Your task to perform on an android device: open app "Expedia: Hotels, Flights & Car" Image 0: 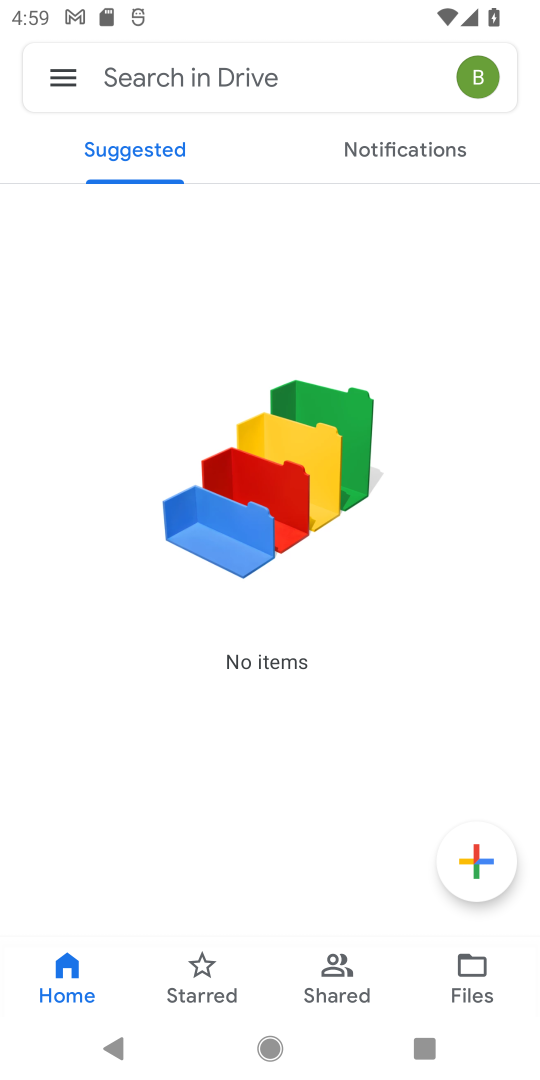
Step 0: press back button
Your task to perform on an android device: open app "Expedia: Hotels, Flights & Car" Image 1: 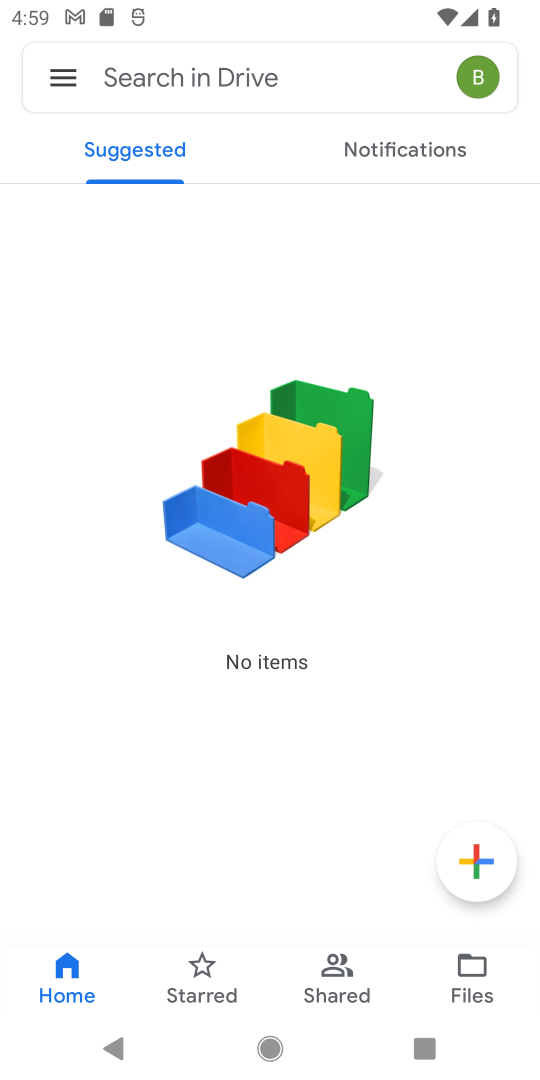
Step 1: press back button
Your task to perform on an android device: open app "Expedia: Hotels, Flights & Car" Image 2: 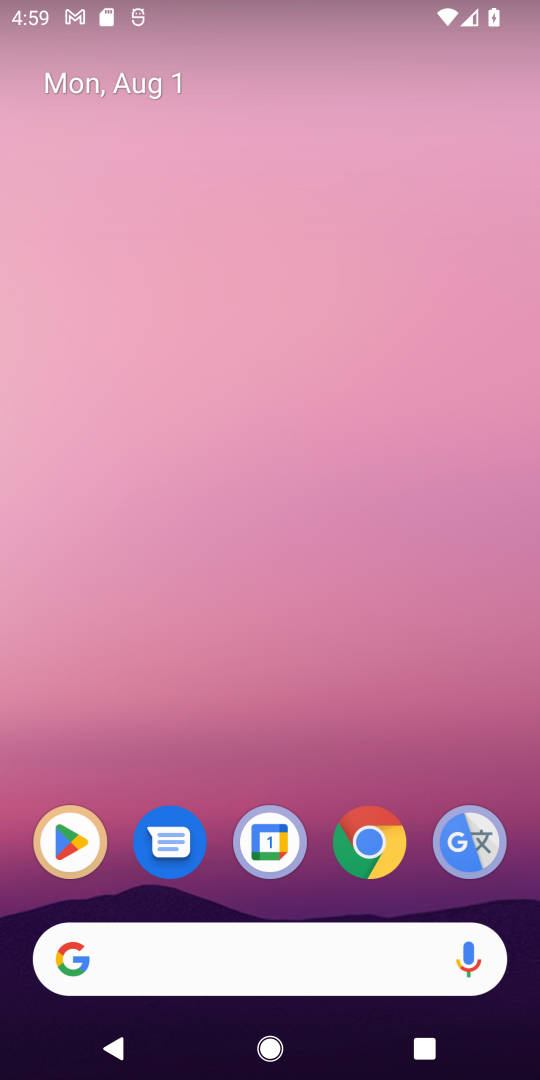
Step 2: press back button
Your task to perform on an android device: open app "Expedia: Hotels, Flights & Car" Image 3: 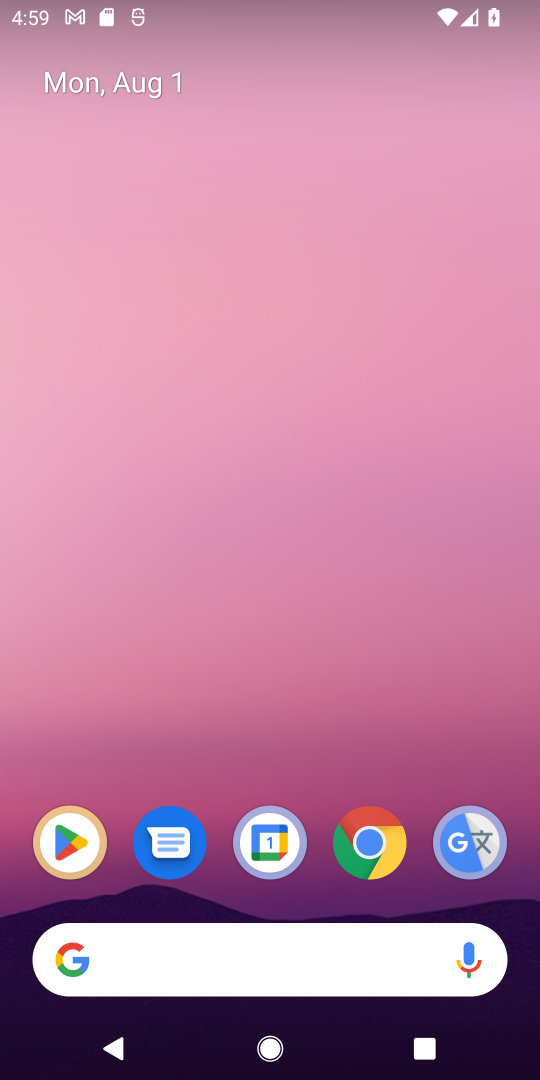
Step 3: drag from (214, 750) to (188, 547)
Your task to perform on an android device: open app "Expedia: Hotels, Flights & Car" Image 4: 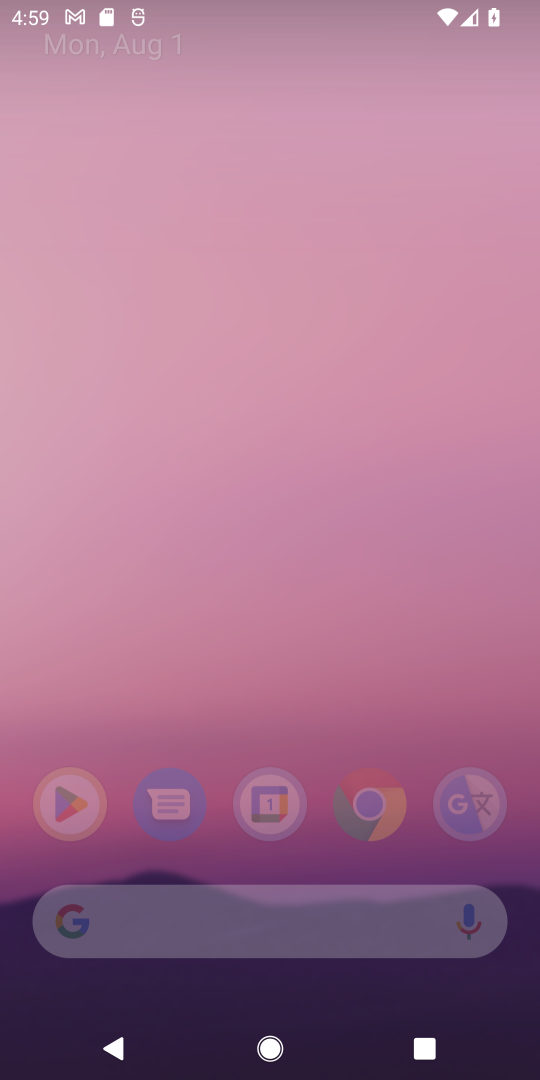
Step 4: drag from (270, 497) to (270, 372)
Your task to perform on an android device: open app "Expedia: Hotels, Flights & Car" Image 5: 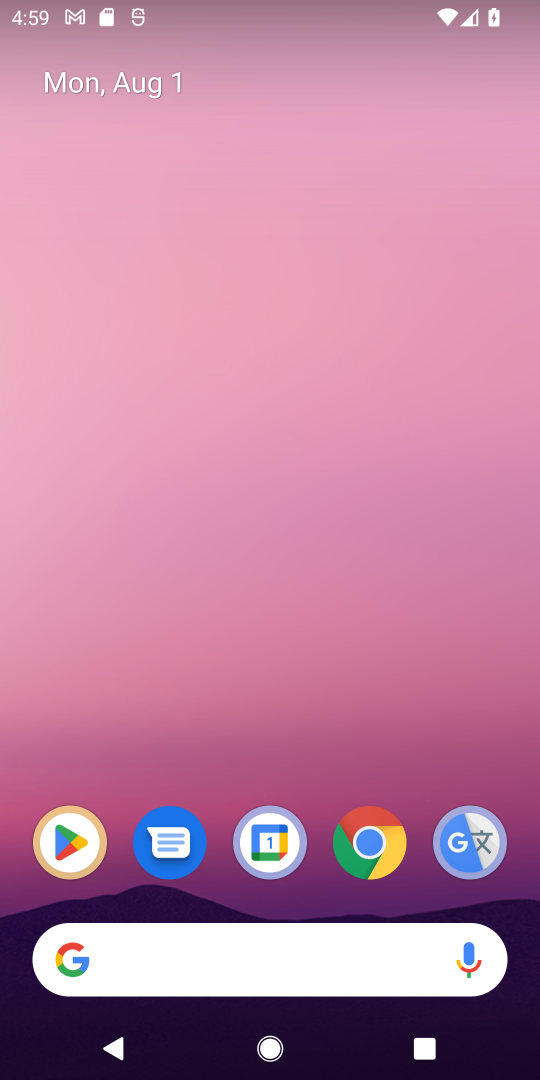
Step 5: drag from (276, 743) to (237, 238)
Your task to perform on an android device: open app "Expedia: Hotels, Flights & Car" Image 6: 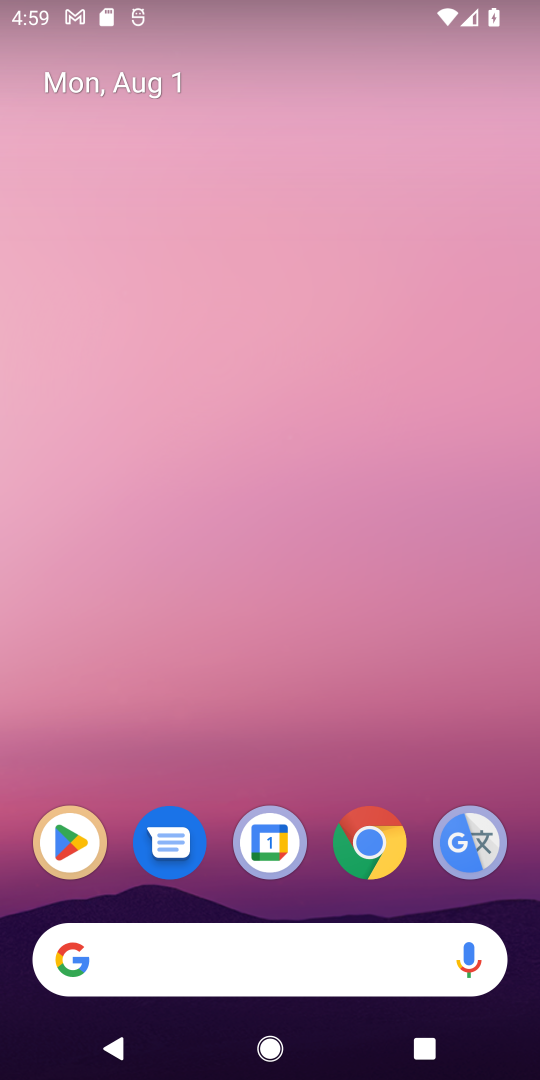
Step 6: drag from (324, 156) to (324, 97)
Your task to perform on an android device: open app "Expedia: Hotels, Flights & Car" Image 7: 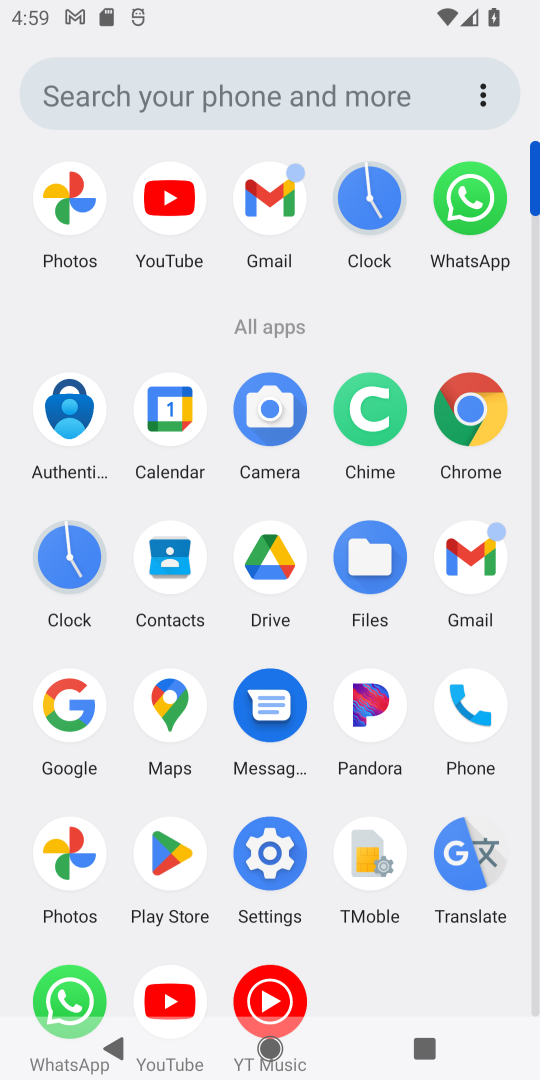
Step 7: drag from (300, 748) to (312, 109)
Your task to perform on an android device: open app "Expedia: Hotels, Flights & Car" Image 8: 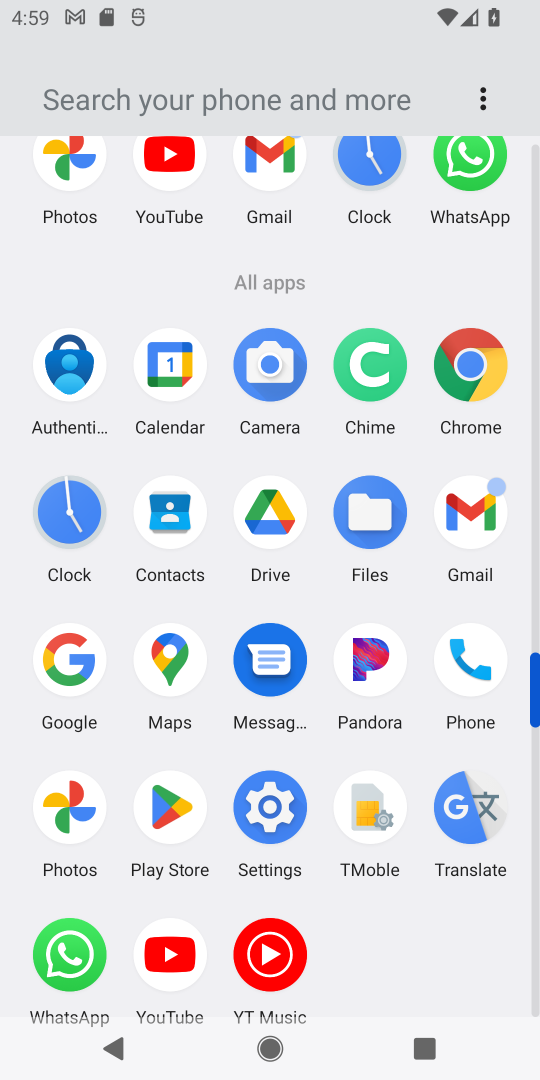
Step 8: click (177, 816)
Your task to perform on an android device: open app "Expedia: Hotels, Flights & Car" Image 9: 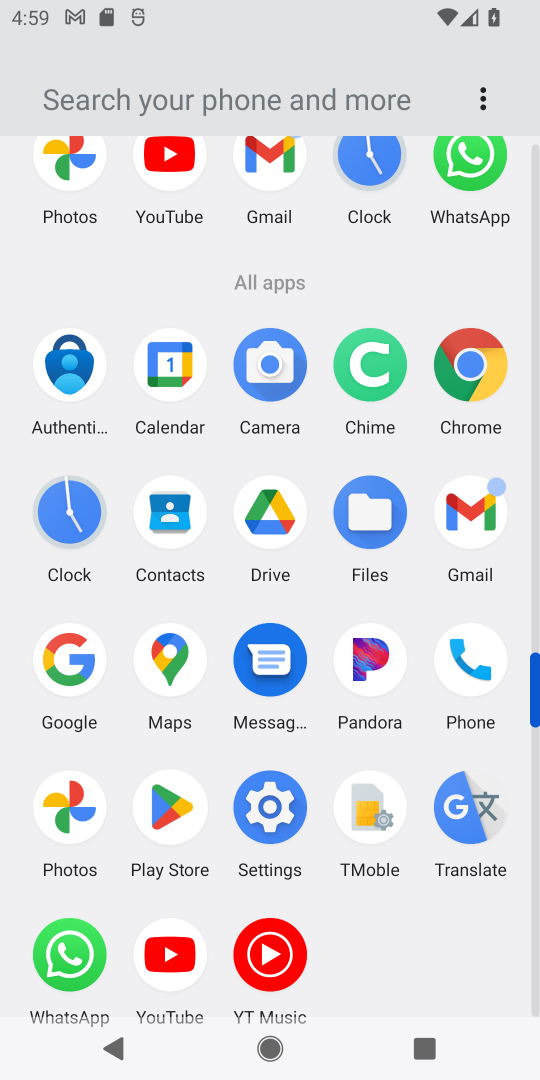
Step 9: click (180, 816)
Your task to perform on an android device: open app "Expedia: Hotels, Flights & Car" Image 10: 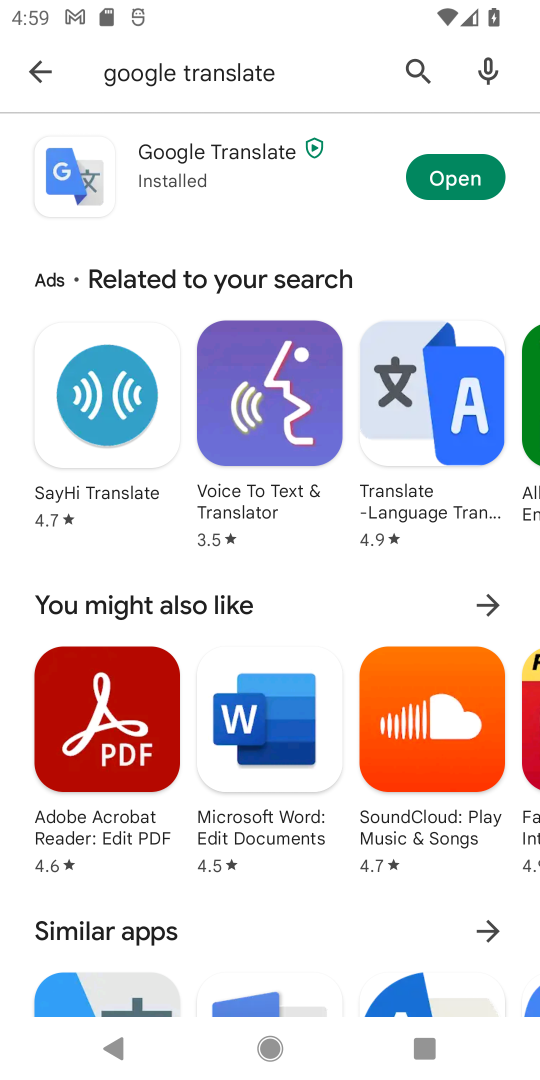
Step 10: click (37, 51)
Your task to perform on an android device: open app "Expedia: Hotels, Flights & Car" Image 11: 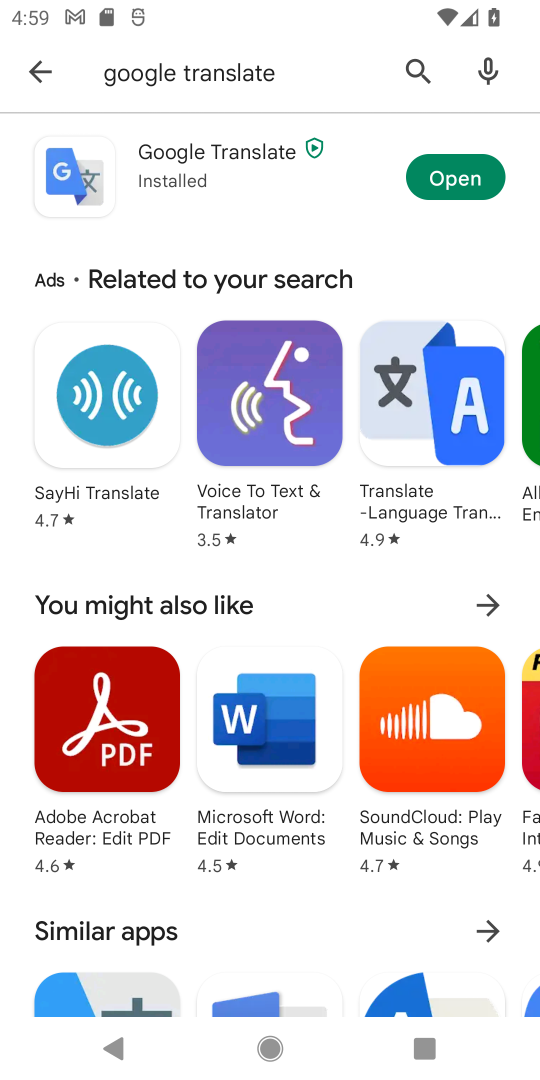
Step 11: click (34, 56)
Your task to perform on an android device: open app "Expedia: Hotels, Flights & Car" Image 12: 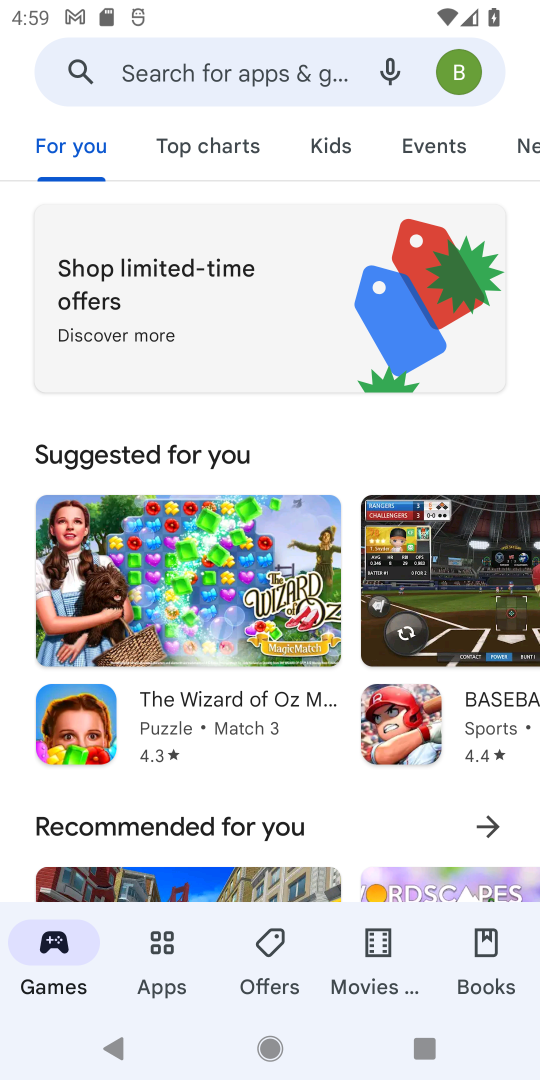
Step 12: click (175, 73)
Your task to perform on an android device: open app "Expedia: Hotels, Flights & Car" Image 13: 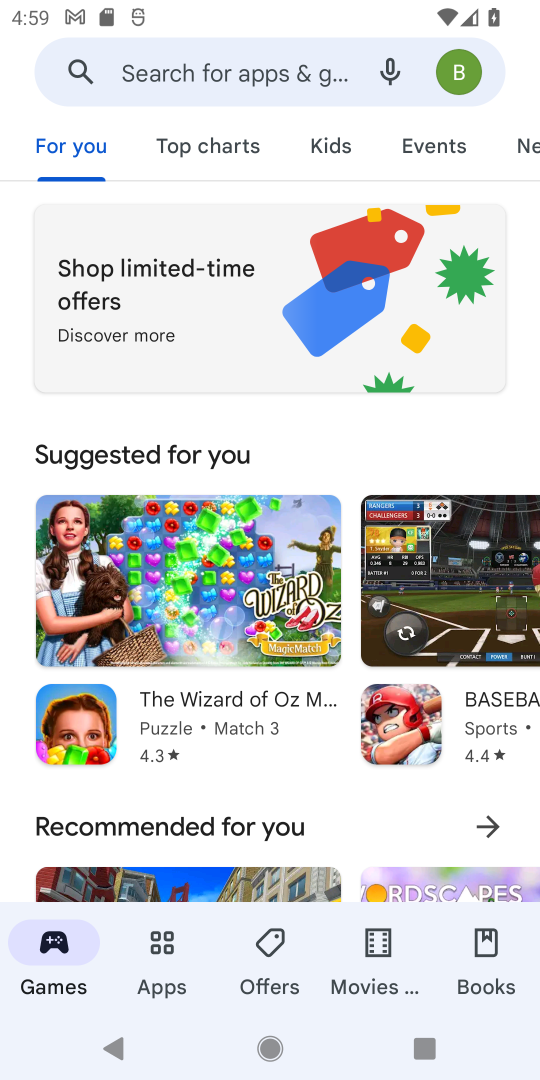
Step 13: click (187, 64)
Your task to perform on an android device: open app "Expedia: Hotels, Flights & Car" Image 14: 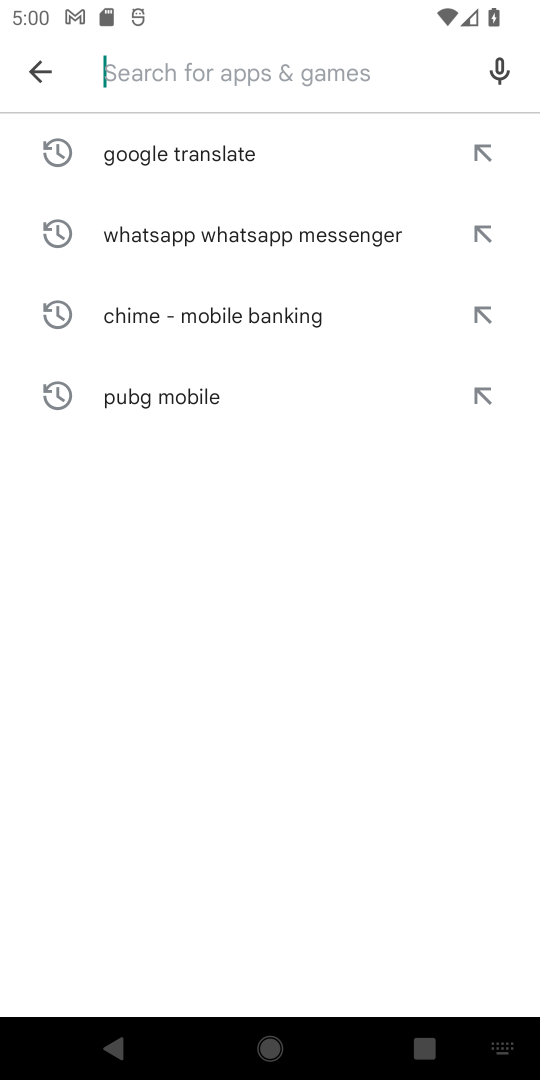
Step 14: type "Expedia :Hotels, Flight& Car"
Your task to perform on an android device: open app "Expedia: Hotels, Flights & Car" Image 15: 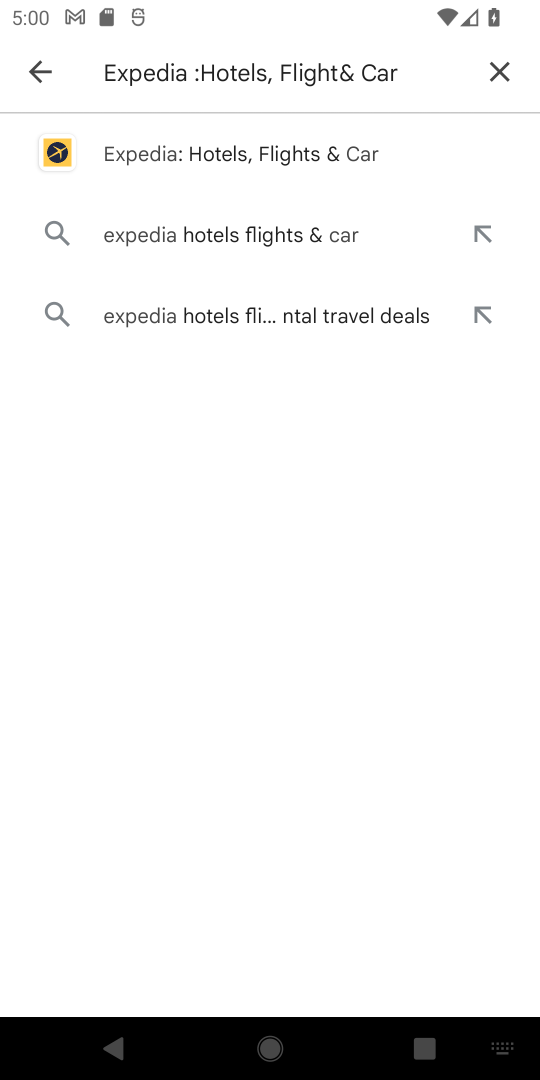
Step 15: click (233, 135)
Your task to perform on an android device: open app "Expedia: Hotels, Flights & Car" Image 16: 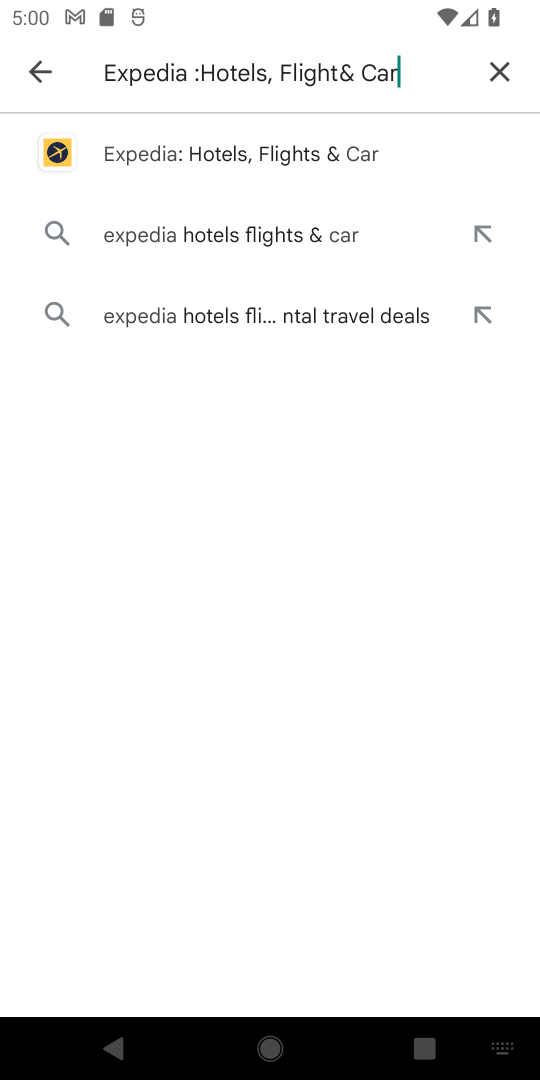
Step 16: click (237, 151)
Your task to perform on an android device: open app "Expedia: Hotels, Flights & Car" Image 17: 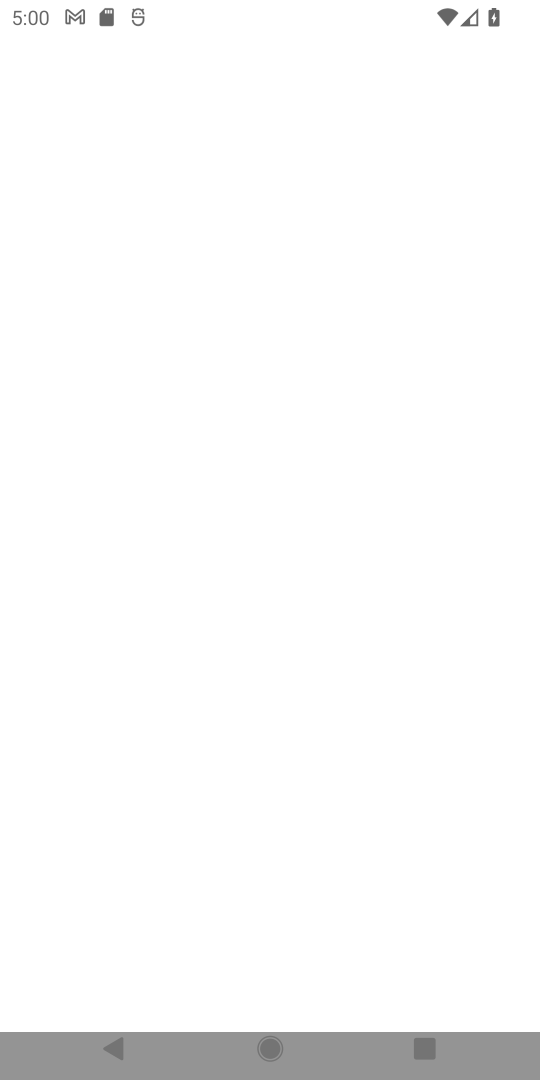
Step 17: click (247, 161)
Your task to perform on an android device: open app "Expedia: Hotels, Flights & Car" Image 18: 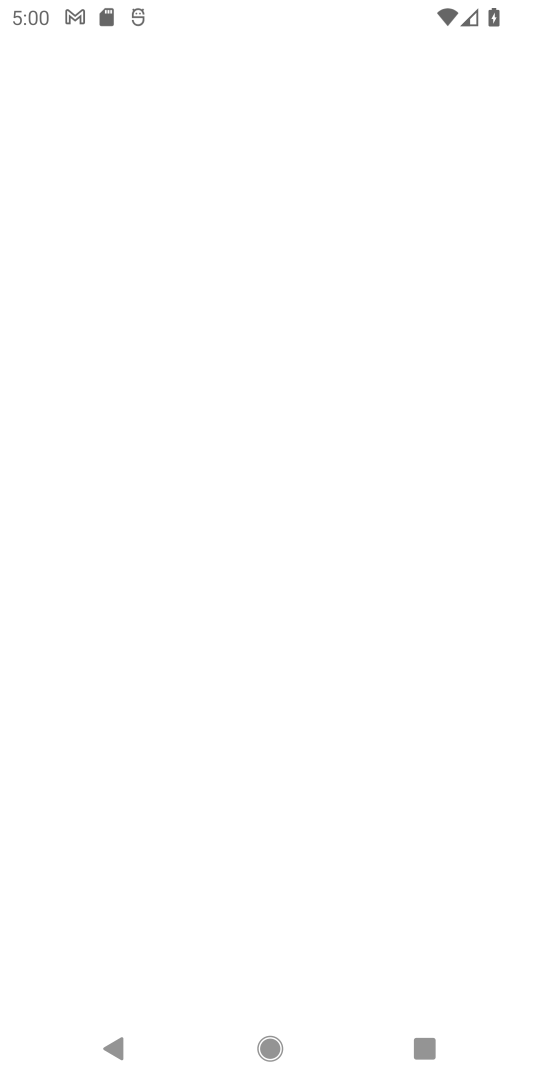
Step 18: click (250, 165)
Your task to perform on an android device: open app "Expedia: Hotels, Flights & Car" Image 19: 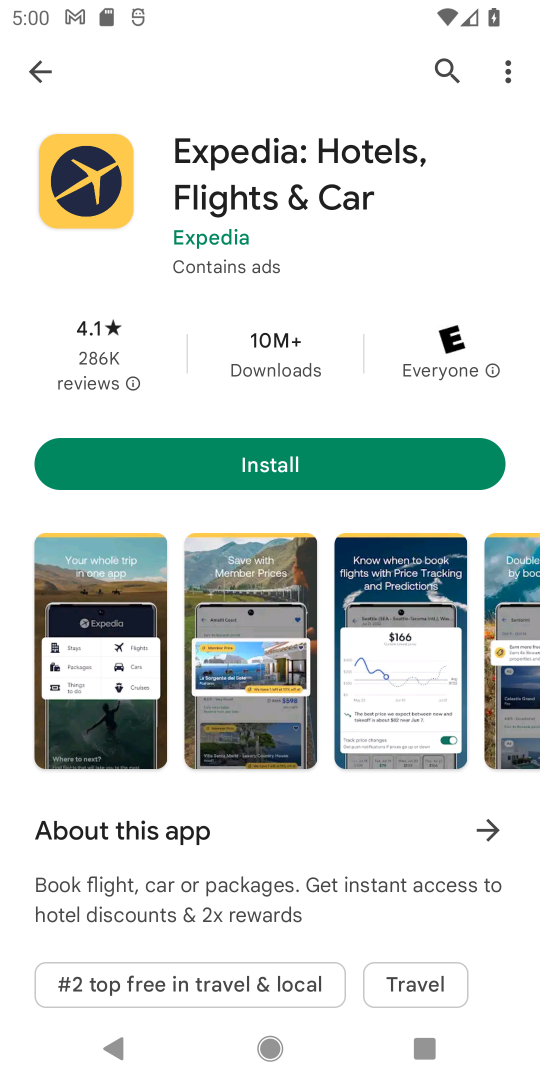
Step 19: click (334, 457)
Your task to perform on an android device: open app "Expedia: Hotels, Flights & Car" Image 20: 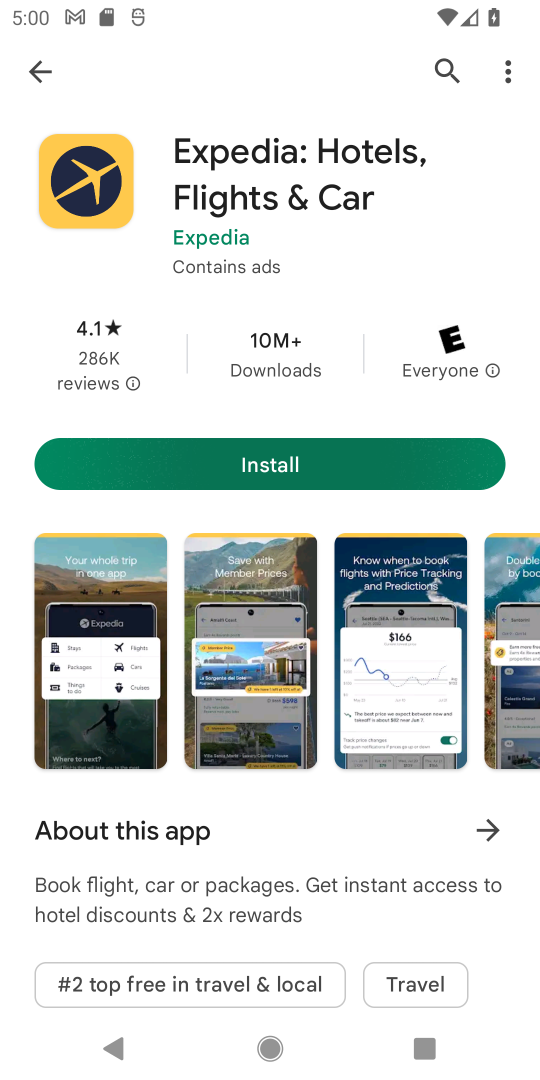
Step 20: click (334, 457)
Your task to perform on an android device: open app "Expedia: Hotels, Flights & Car" Image 21: 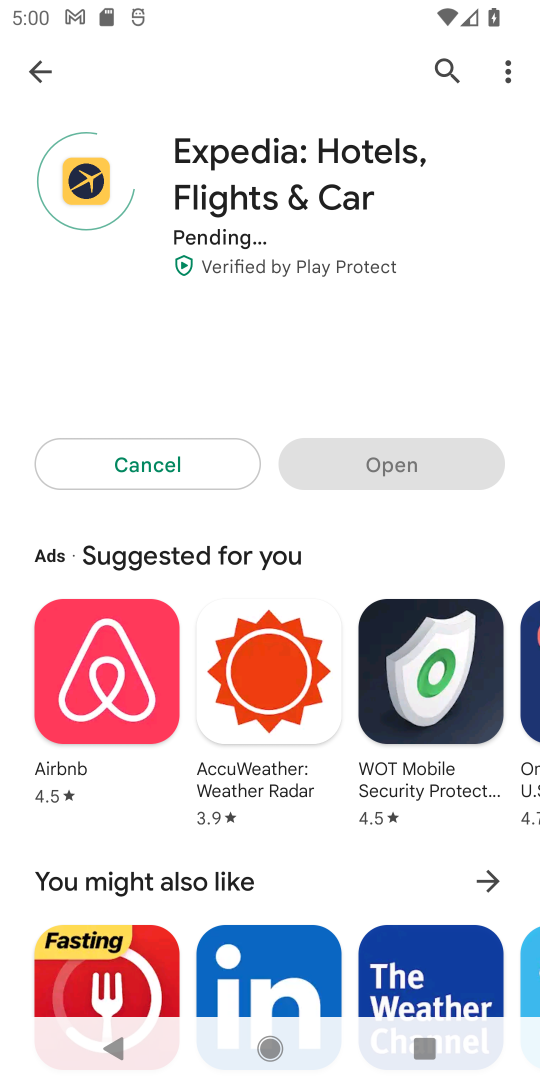
Step 21: click (338, 464)
Your task to perform on an android device: open app "Expedia: Hotels, Flights & Car" Image 22: 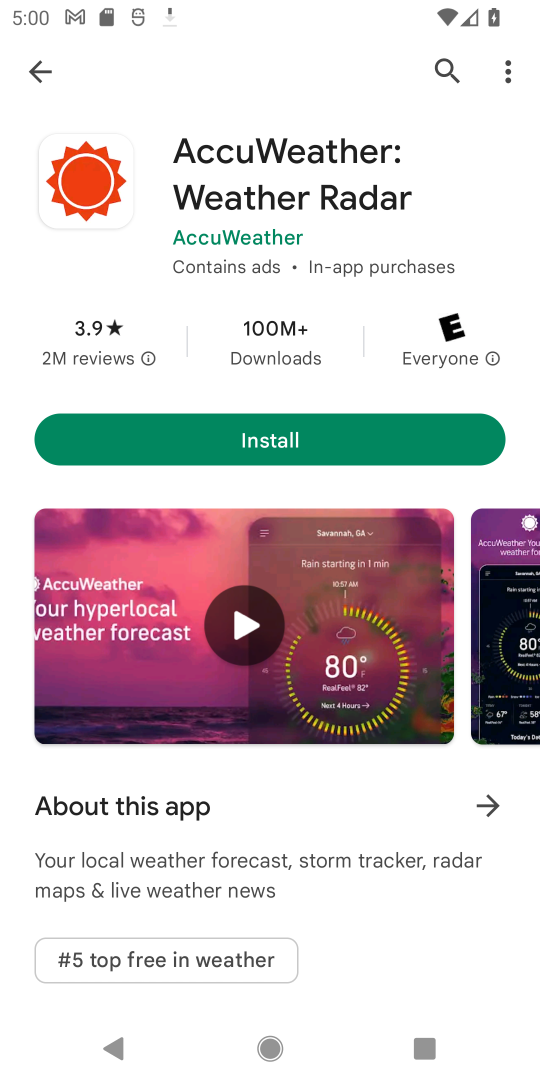
Step 22: click (324, 431)
Your task to perform on an android device: open app "Expedia: Hotels, Flights & Car" Image 23: 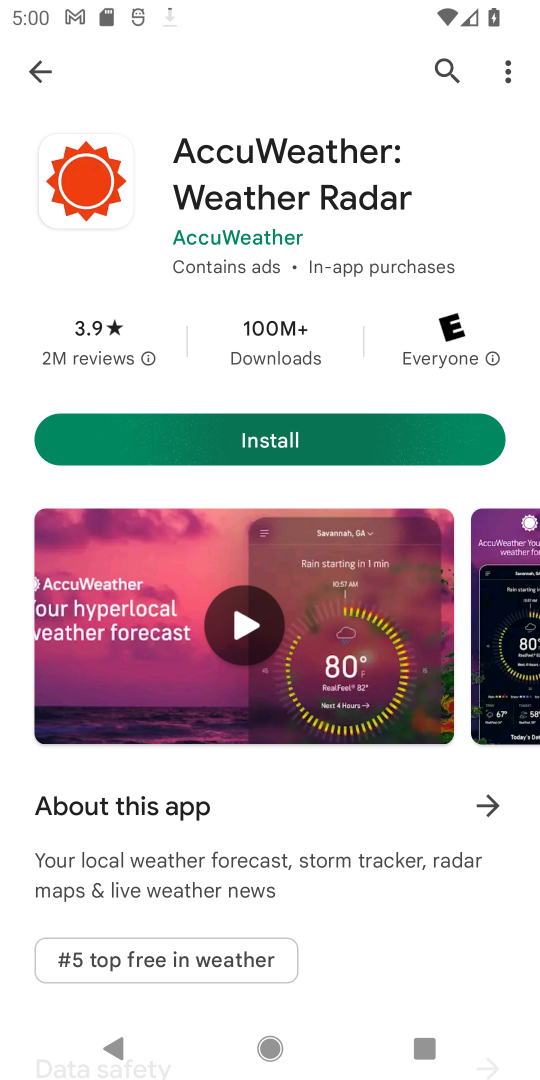
Step 23: click (327, 433)
Your task to perform on an android device: open app "Expedia: Hotels, Flights & Car" Image 24: 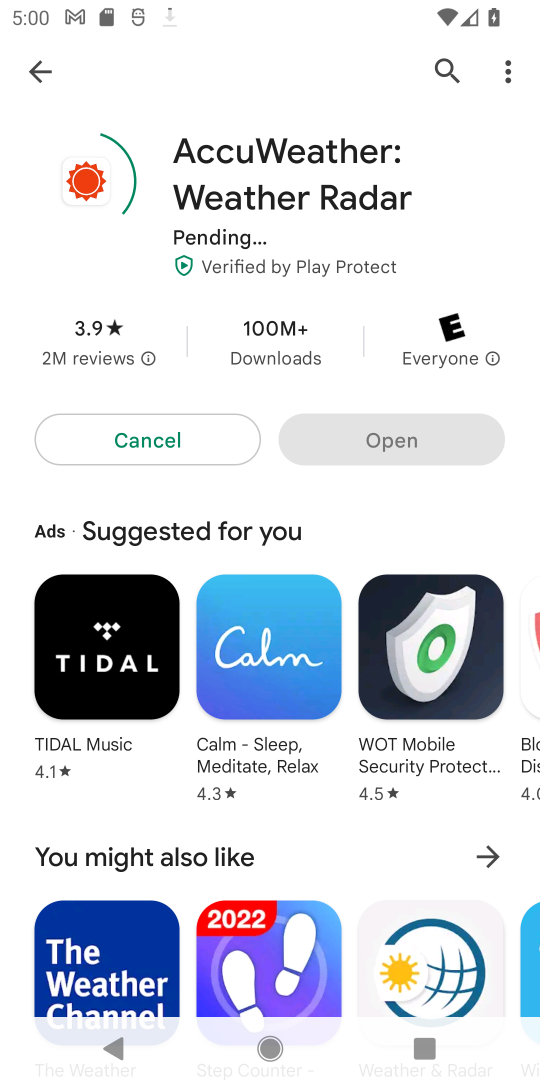
Step 24: click (338, 436)
Your task to perform on an android device: open app "Expedia: Hotels, Flights & Car" Image 25: 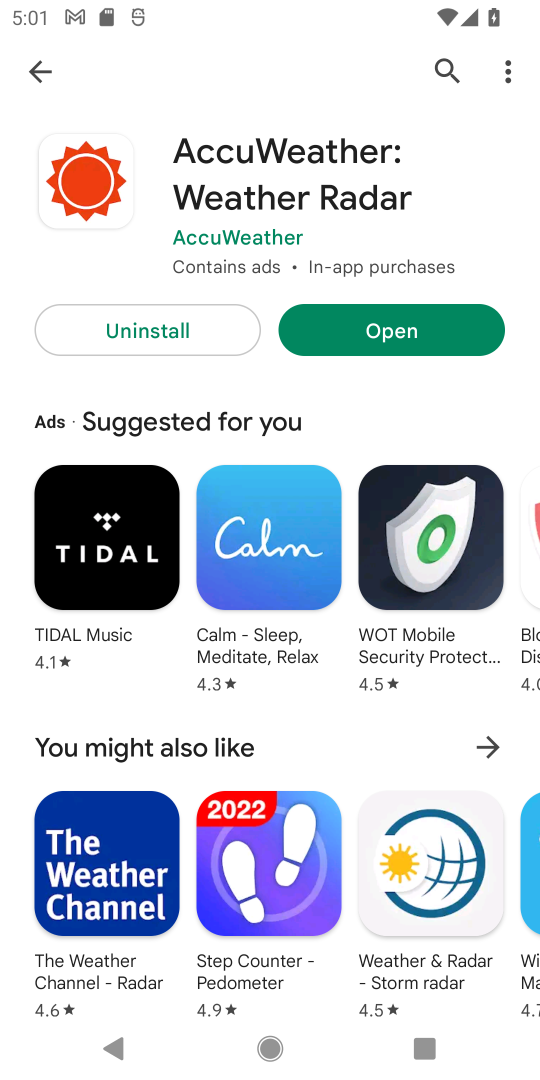
Step 25: click (395, 324)
Your task to perform on an android device: open app "Expedia: Hotels, Flights & Car" Image 26: 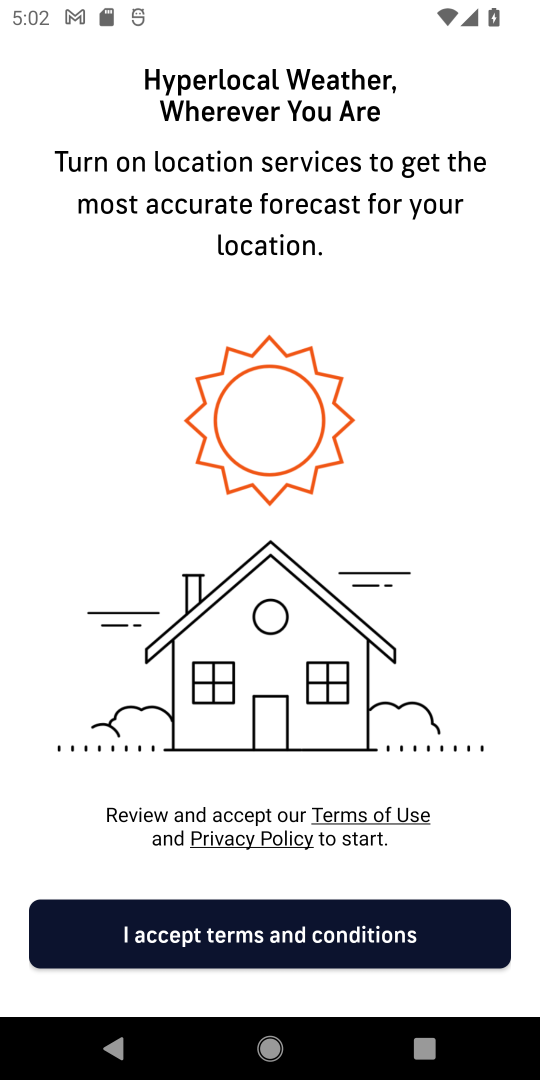
Step 26: task complete